Your task to perform on an android device: Open calendar and show me the fourth week of next month Image 0: 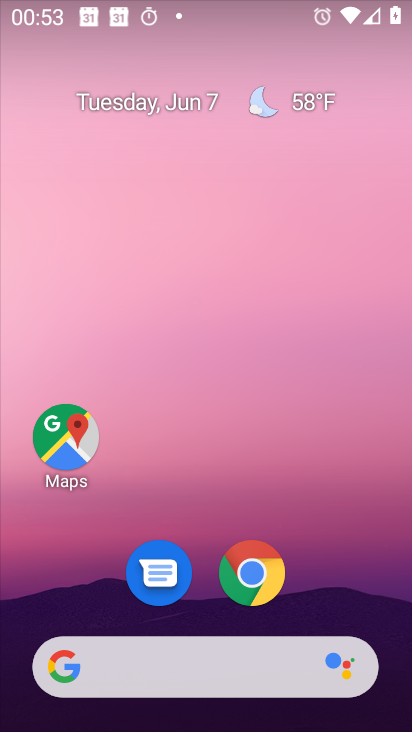
Step 0: drag from (365, 626) to (303, 128)
Your task to perform on an android device: Open calendar and show me the fourth week of next month Image 1: 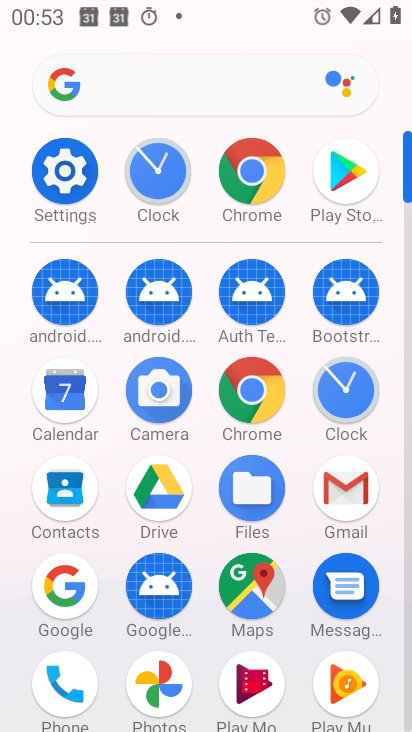
Step 1: click (47, 396)
Your task to perform on an android device: Open calendar and show me the fourth week of next month Image 2: 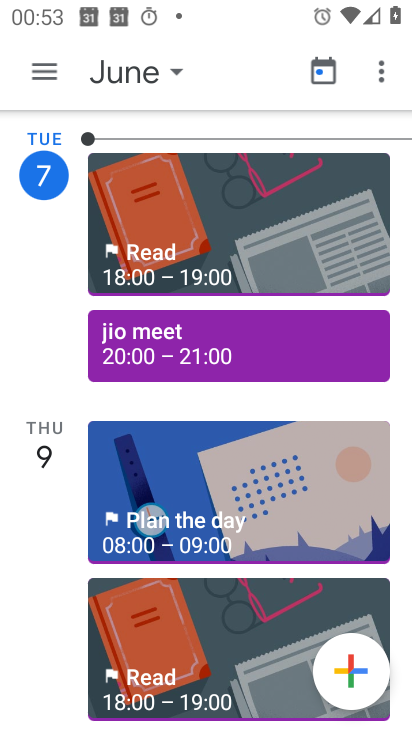
Step 2: click (158, 83)
Your task to perform on an android device: Open calendar and show me the fourth week of next month Image 3: 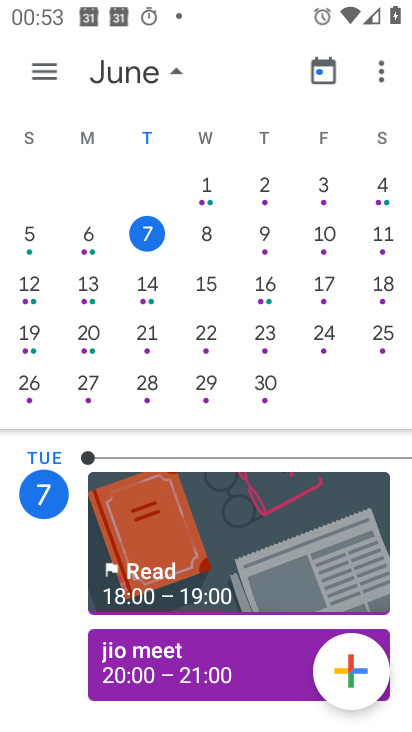
Step 3: drag from (350, 230) to (11, 307)
Your task to perform on an android device: Open calendar and show me the fourth week of next month Image 4: 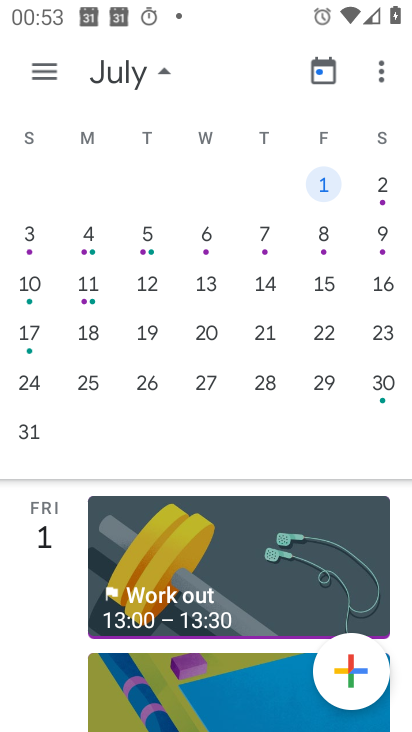
Step 4: click (325, 331)
Your task to perform on an android device: Open calendar and show me the fourth week of next month Image 5: 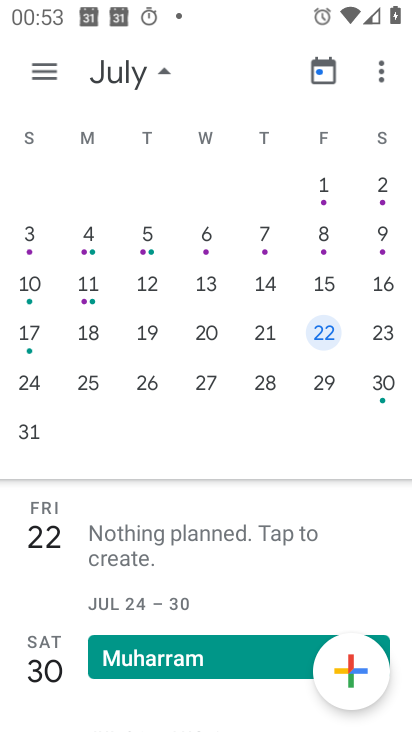
Step 5: task complete